Your task to perform on an android device: Open the web browser Image 0: 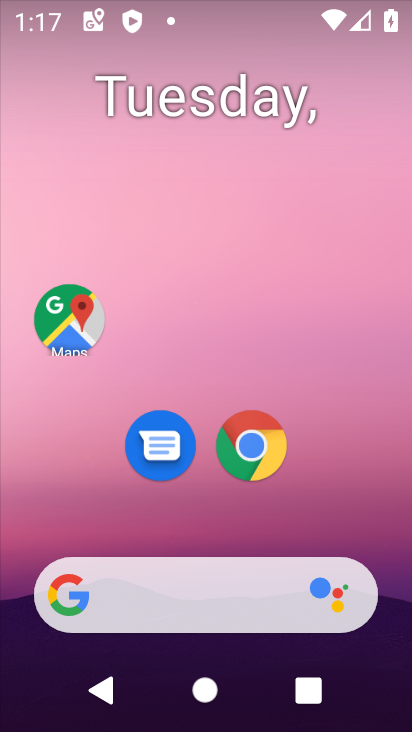
Step 0: press home button
Your task to perform on an android device: Open the web browser Image 1: 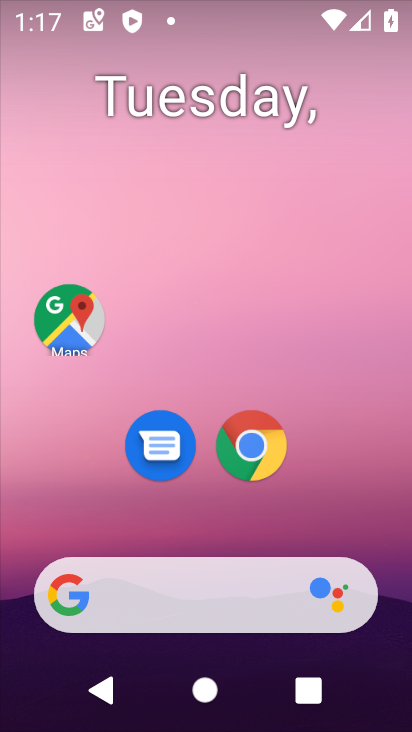
Step 1: drag from (216, 538) to (220, 59)
Your task to perform on an android device: Open the web browser Image 2: 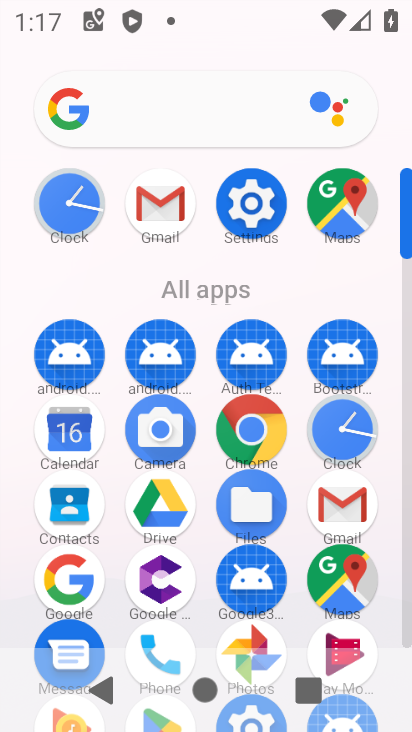
Step 2: click (250, 421)
Your task to perform on an android device: Open the web browser Image 3: 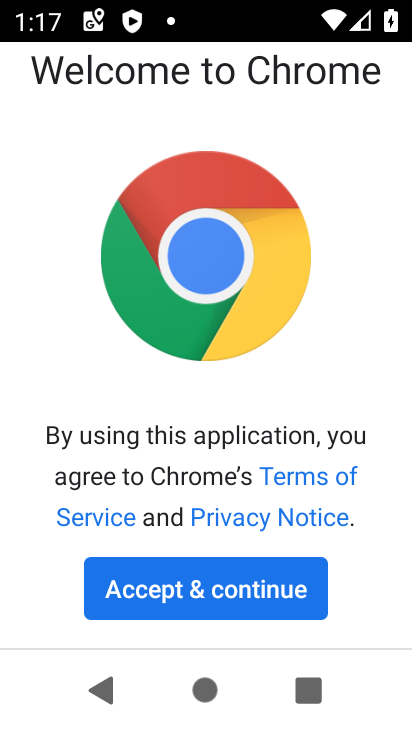
Step 3: click (195, 586)
Your task to perform on an android device: Open the web browser Image 4: 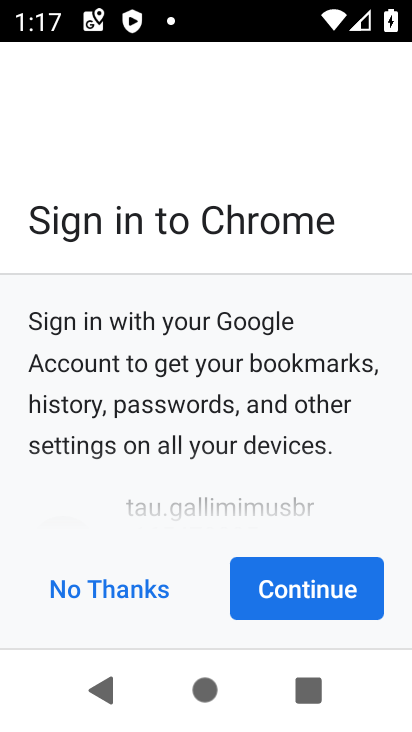
Step 4: click (313, 585)
Your task to perform on an android device: Open the web browser Image 5: 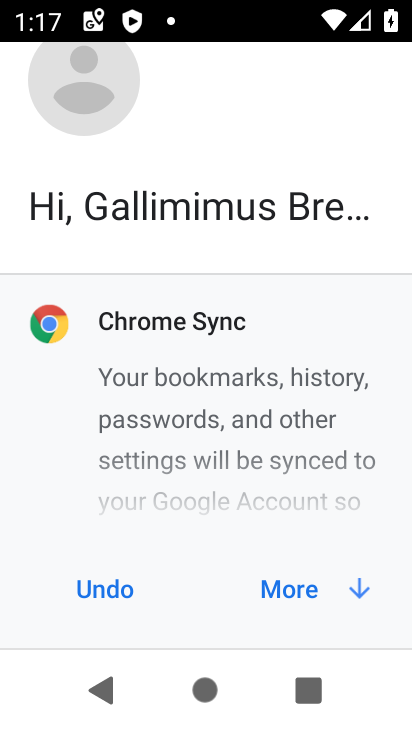
Step 5: click (307, 584)
Your task to perform on an android device: Open the web browser Image 6: 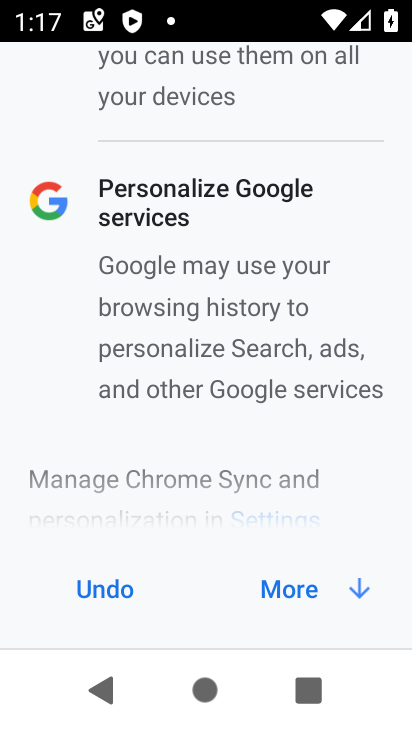
Step 6: click (291, 582)
Your task to perform on an android device: Open the web browser Image 7: 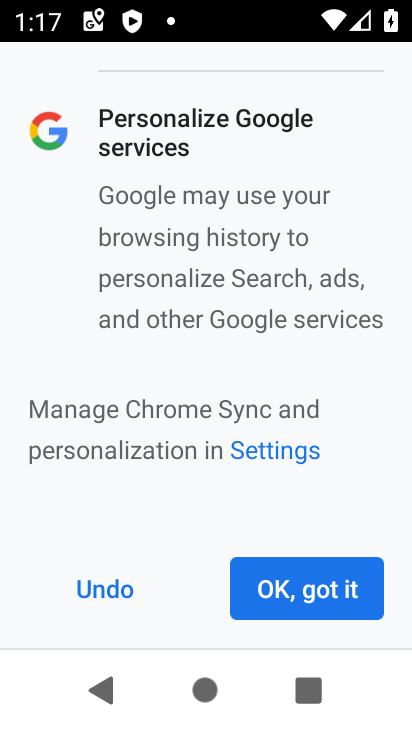
Step 7: click (297, 588)
Your task to perform on an android device: Open the web browser Image 8: 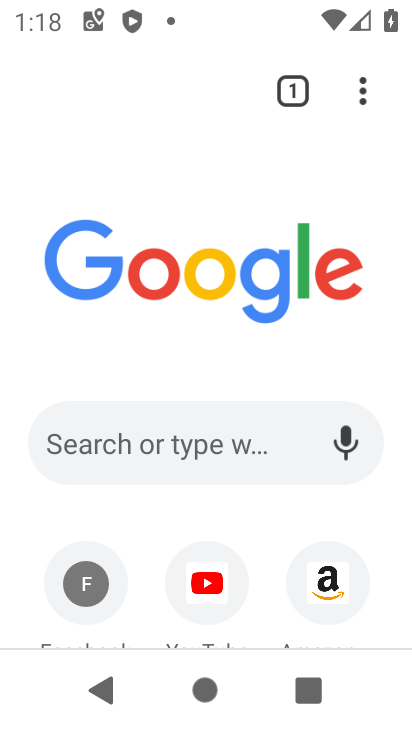
Step 8: task complete